Your task to perform on an android device: turn off improve location accuracy Image 0: 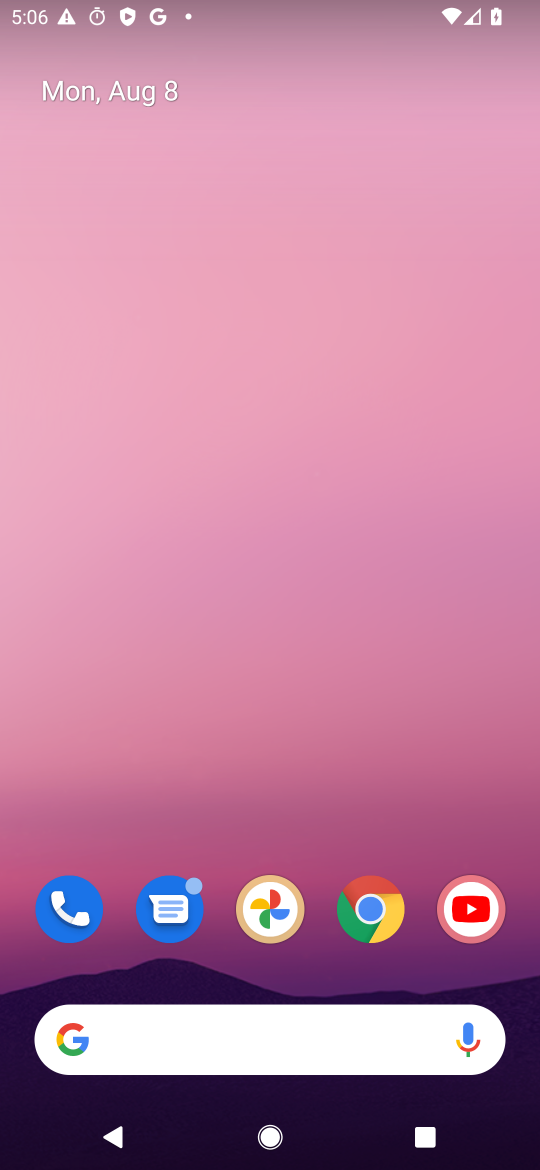
Step 0: drag from (243, 1044) to (424, 286)
Your task to perform on an android device: turn off improve location accuracy Image 1: 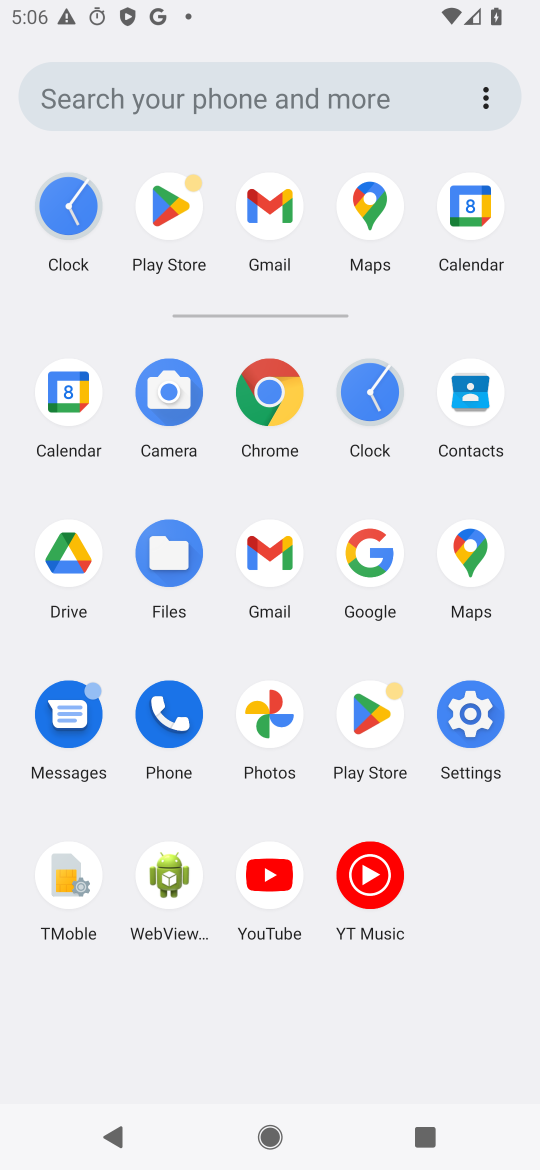
Step 1: click (470, 715)
Your task to perform on an android device: turn off improve location accuracy Image 2: 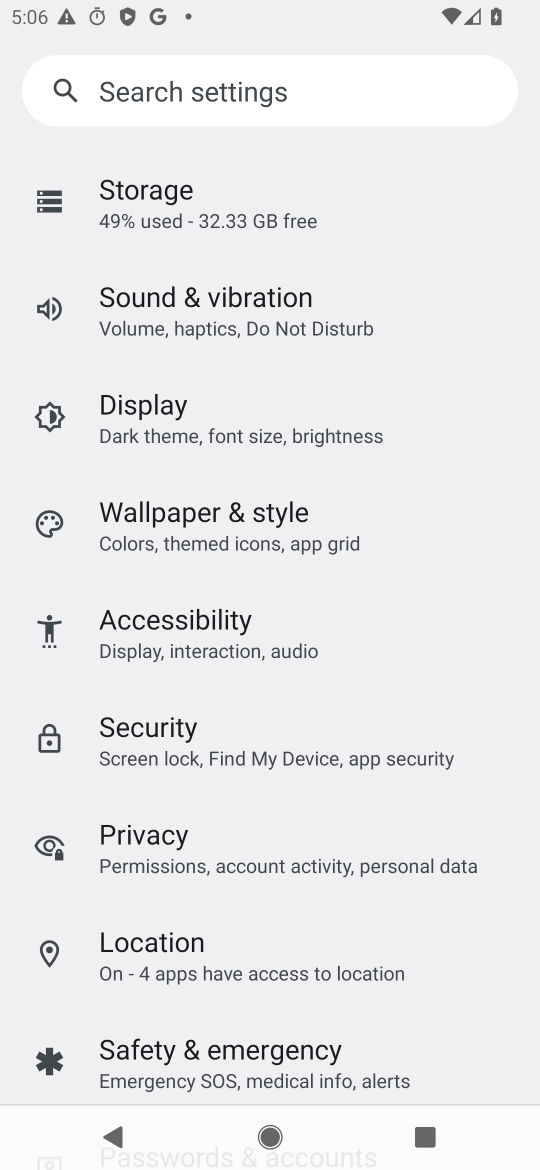
Step 2: click (162, 959)
Your task to perform on an android device: turn off improve location accuracy Image 3: 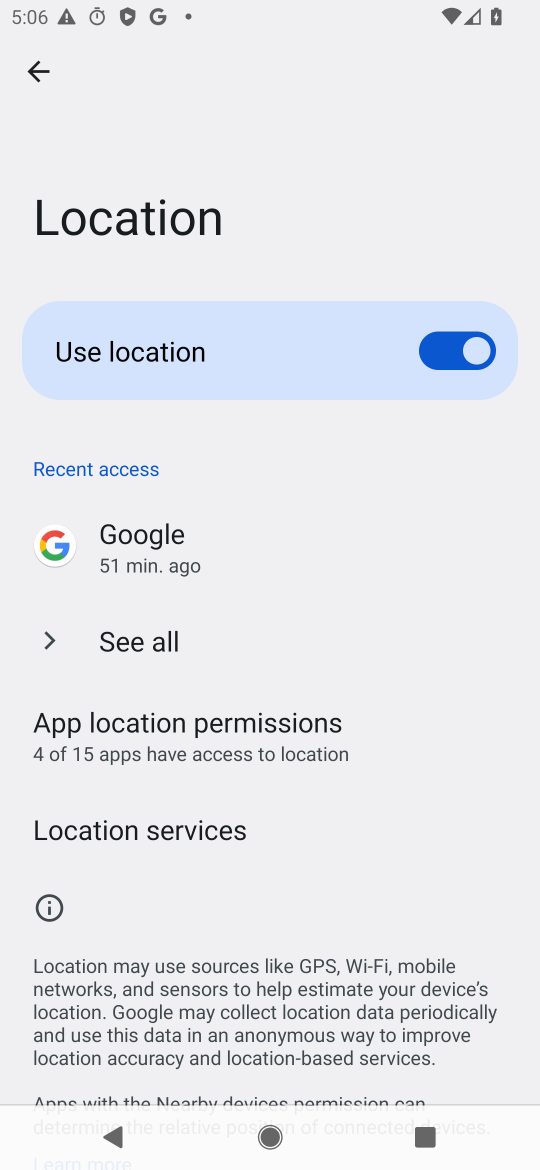
Step 3: drag from (258, 896) to (381, 510)
Your task to perform on an android device: turn off improve location accuracy Image 4: 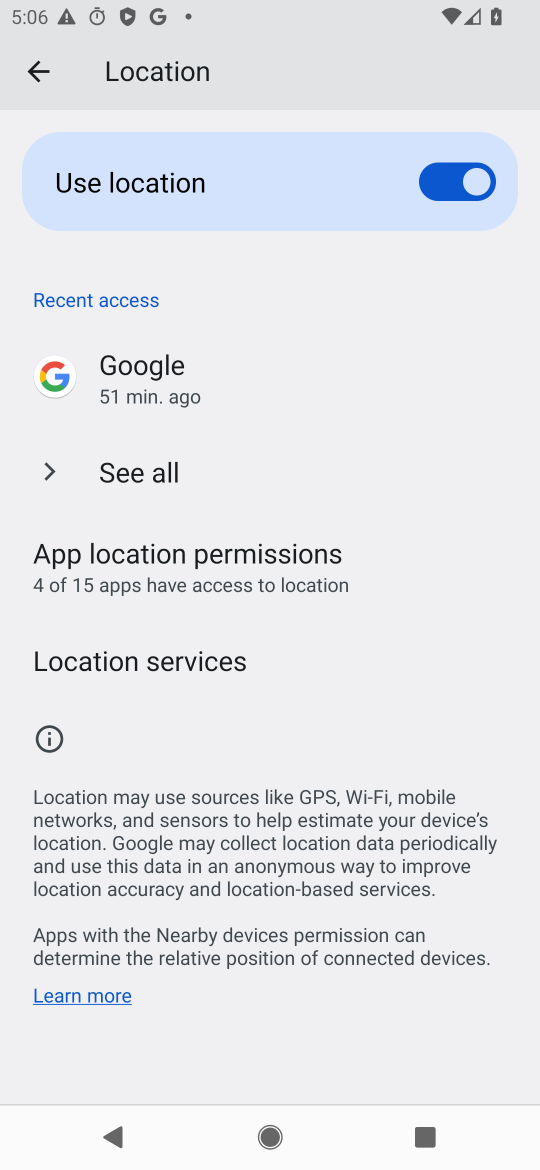
Step 4: click (148, 668)
Your task to perform on an android device: turn off improve location accuracy Image 5: 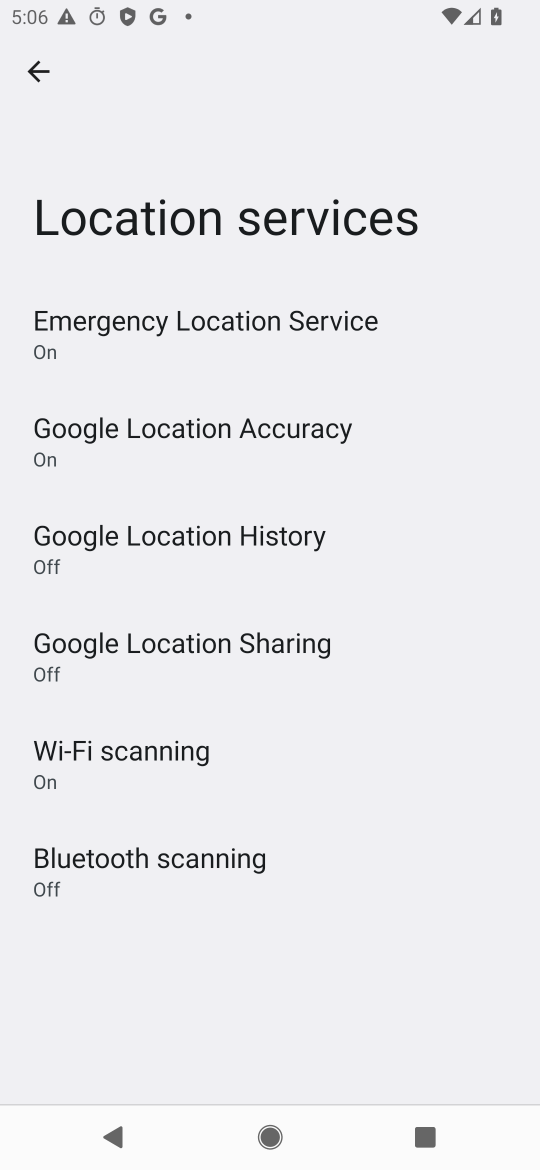
Step 5: click (257, 435)
Your task to perform on an android device: turn off improve location accuracy Image 6: 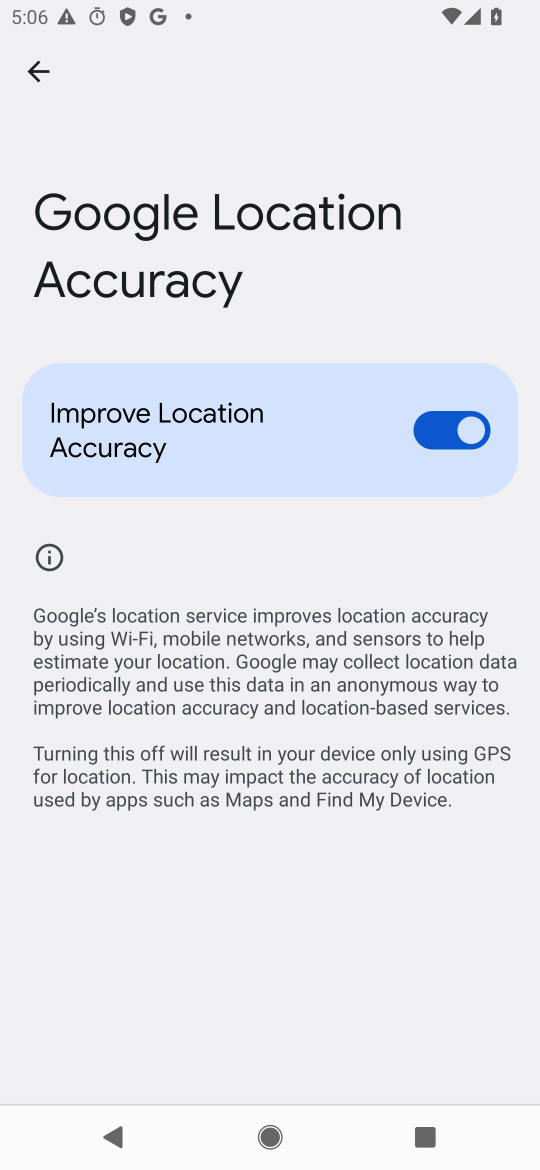
Step 6: click (433, 417)
Your task to perform on an android device: turn off improve location accuracy Image 7: 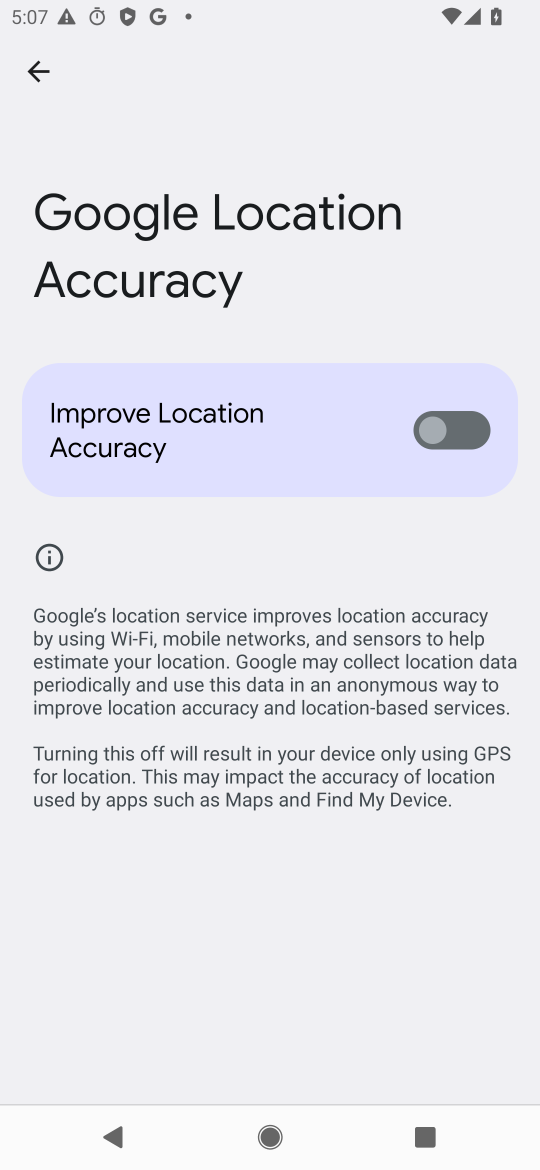
Step 7: task complete